Your task to perform on an android device: Open eBay Image 0: 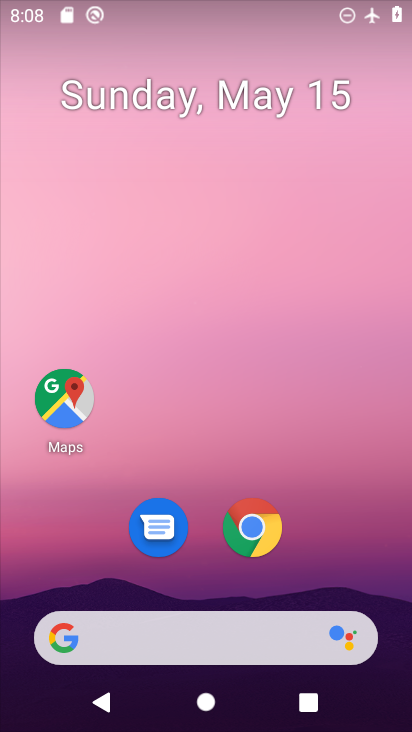
Step 0: click (261, 526)
Your task to perform on an android device: Open eBay Image 1: 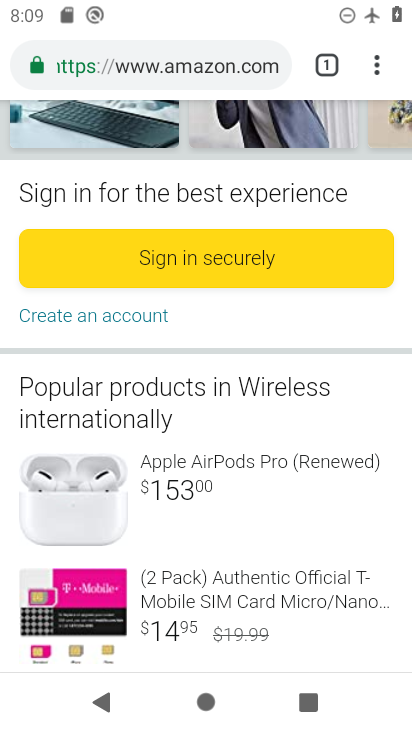
Step 1: click (331, 69)
Your task to perform on an android device: Open eBay Image 2: 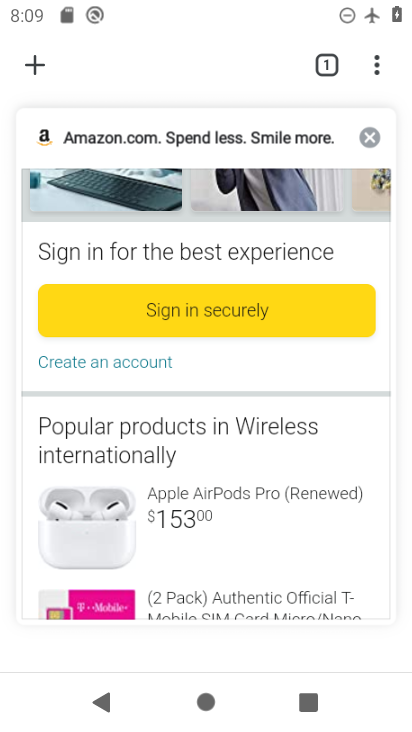
Step 2: click (45, 60)
Your task to perform on an android device: Open eBay Image 3: 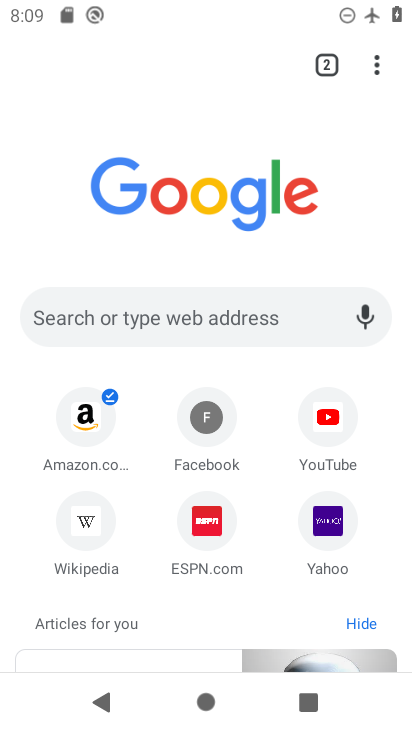
Step 3: click (135, 309)
Your task to perform on an android device: Open eBay Image 4: 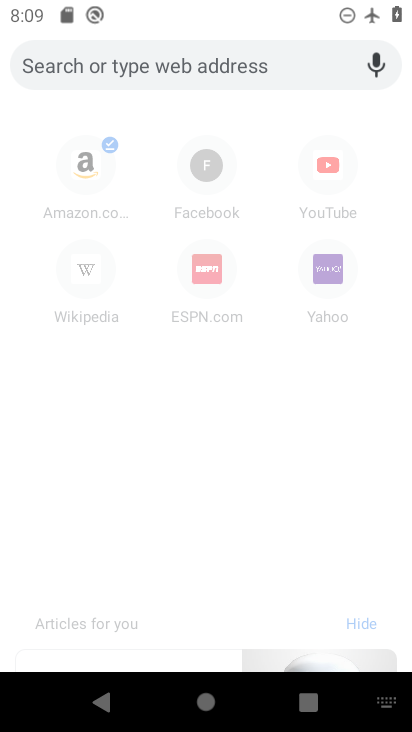
Step 4: type "eBay"
Your task to perform on an android device: Open eBay Image 5: 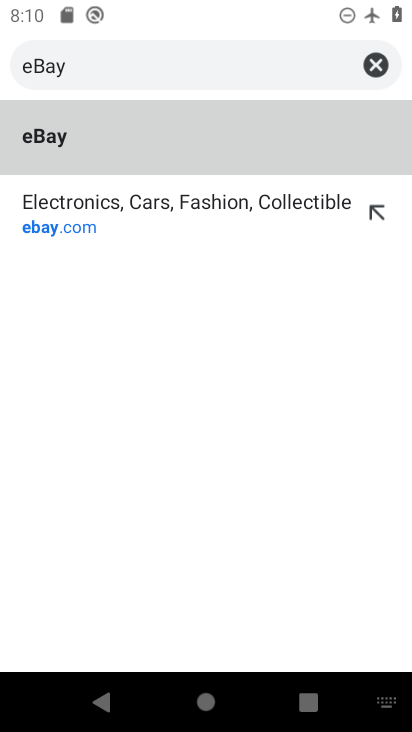
Step 5: click (122, 138)
Your task to perform on an android device: Open eBay Image 6: 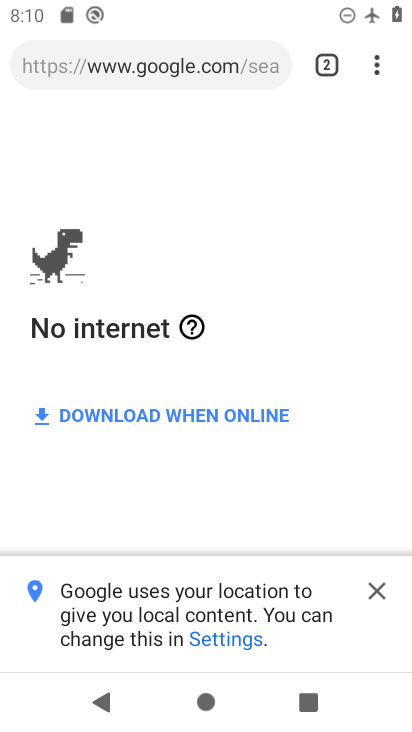
Step 6: task complete